Your task to perform on an android device: Open the map Image 0: 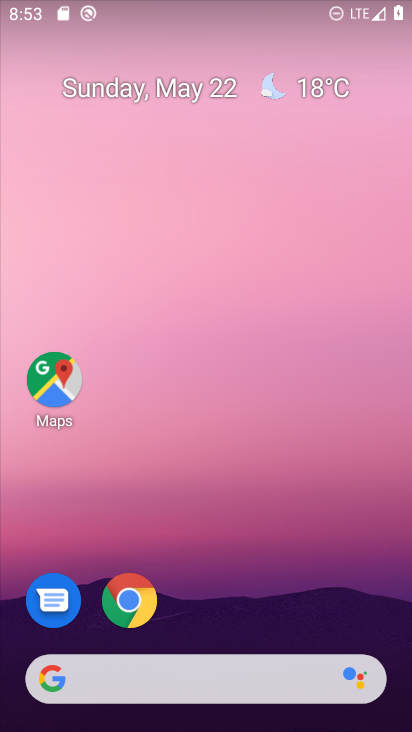
Step 0: drag from (399, 648) to (206, 20)
Your task to perform on an android device: Open the map Image 1: 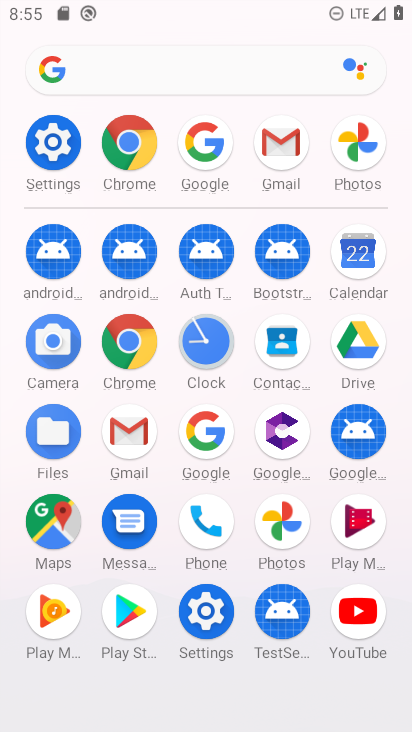
Step 1: click (67, 508)
Your task to perform on an android device: Open the map Image 2: 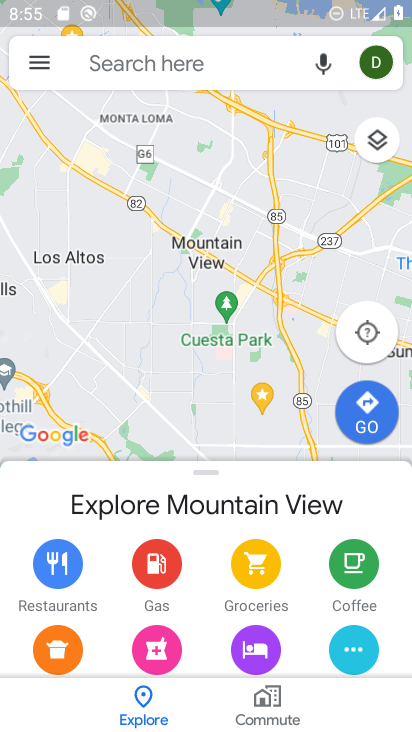
Step 2: task complete